Your task to perform on an android device: Go to wifi settings Image 0: 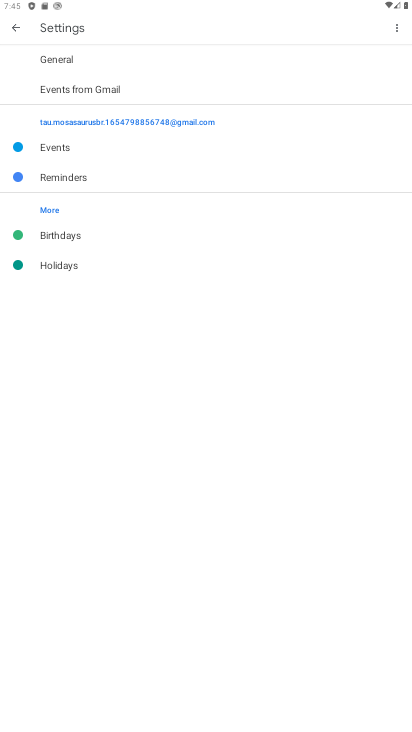
Step 0: press home button
Your task to perform on an android device: Go to wifi settings Image 1: 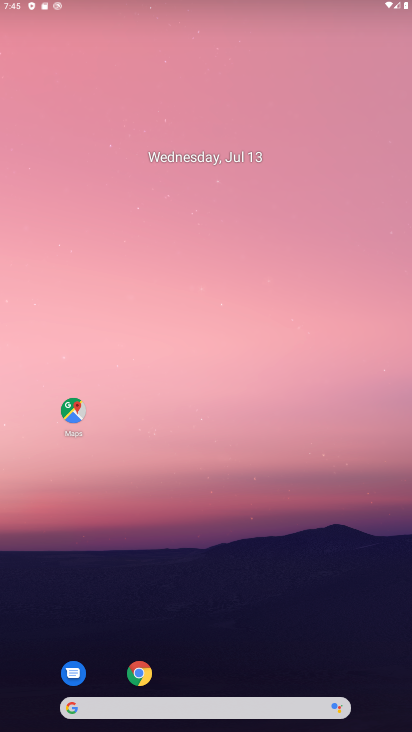
Step 1: drag from (313, 610) to (278, 53)
Your task to perform on an android device: Go to wifi settings Image 2: 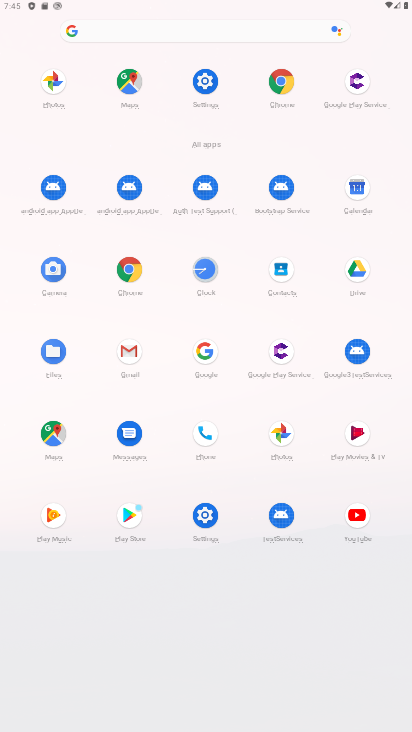
Step 2: click (206, 83)
Your task to perform on an android device: Go to wifi settings Image 3: 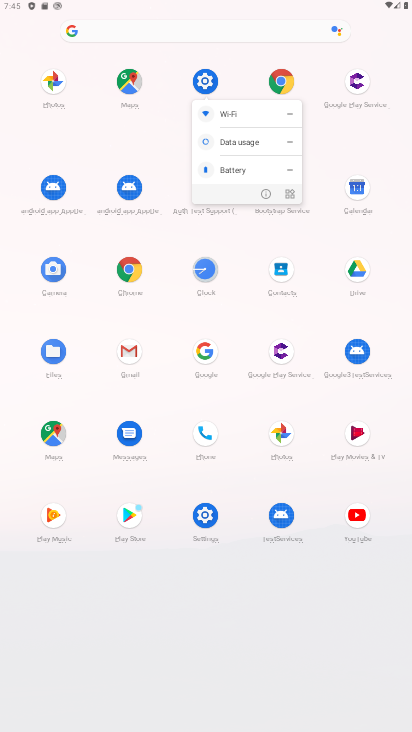
Step 3: click (201, 79)
Your task to perform on an android device: Go to wifi settings Image 4: 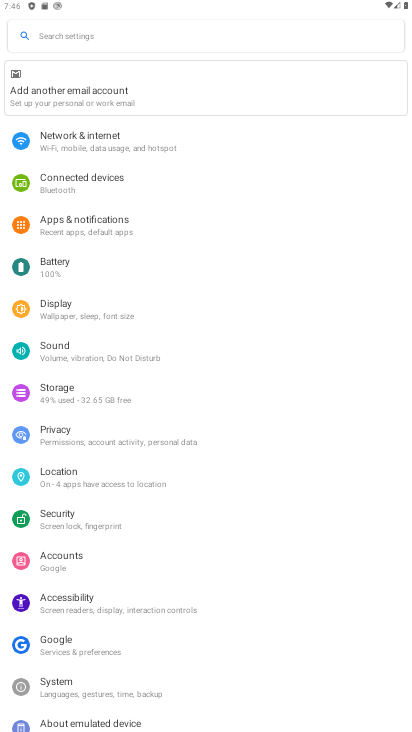
Step 4: click (89, 138)
Your task to perform on an android device: Go to wifi settings Image 5: 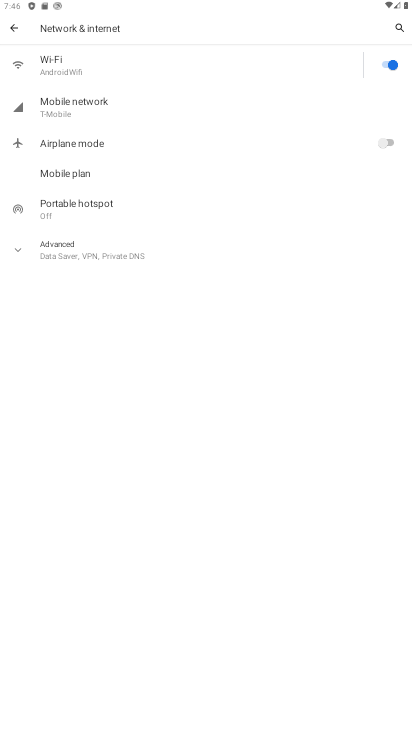
Step 5: click (52, 61)
Your task to perform on an android device: Go to wifi settings Image 6: 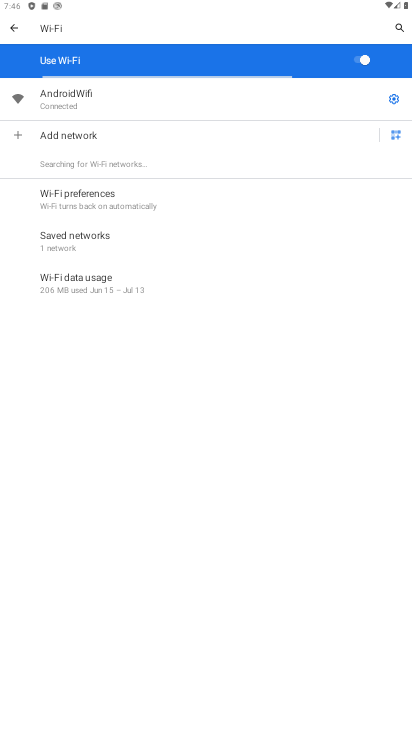
Step 6: click (399, 99)
Your task to perform on an android device: Go to wifi settings Image 7: 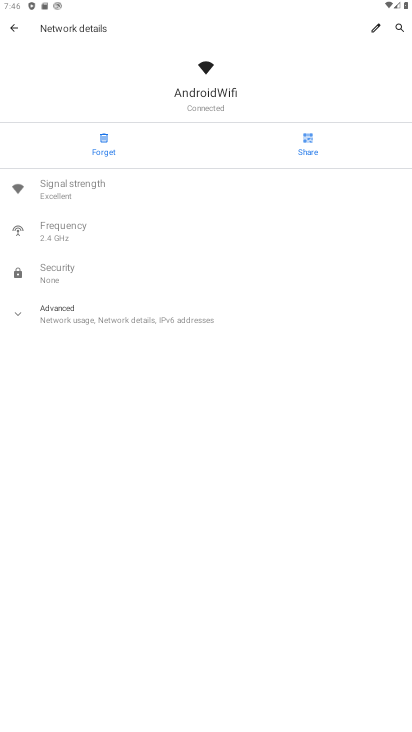
Step 7: task complete